Your task to perform on an android device: turn off picture-in-picture Image 0: 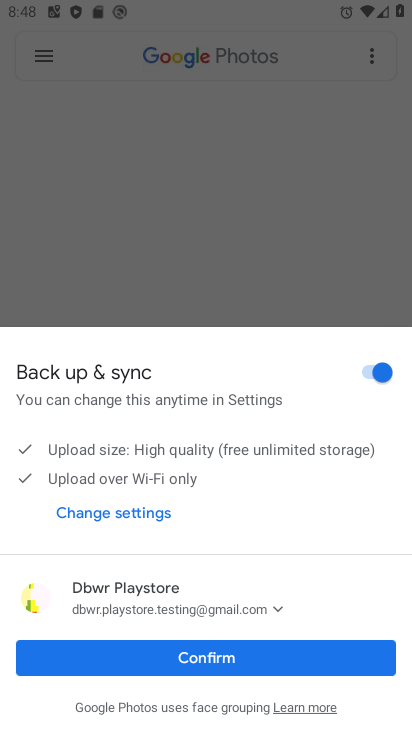
Step 0: click (288, 666)
Your task to perform on an android device: turn off picture-in-picture Image 1: 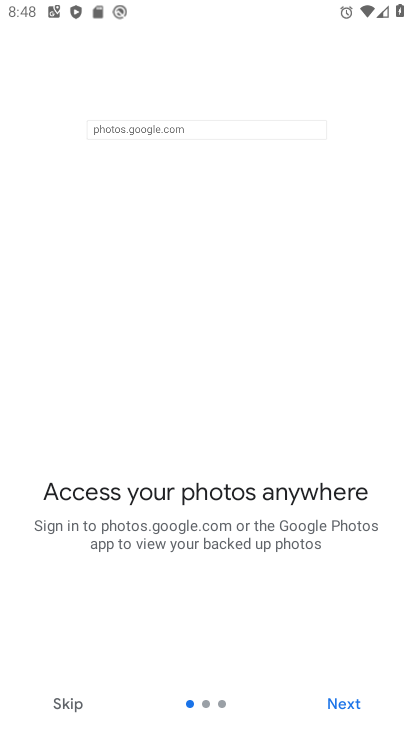
Step 1: press home button
Your task to perform on an android device: turn off picture-in-picture Image 2: 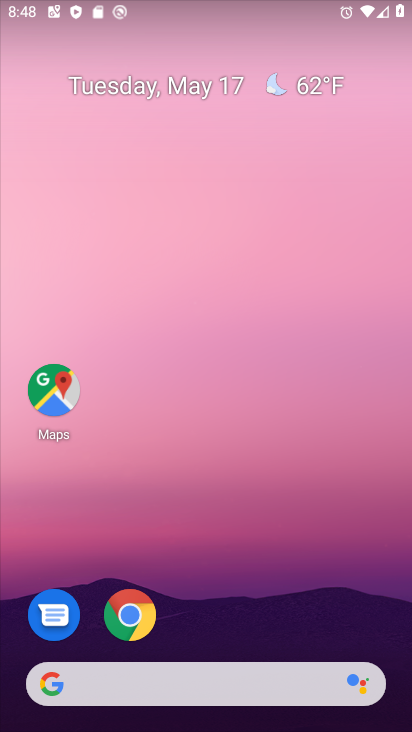
Step 2: click (133, 611)
Your task to perform on an android device: turn off picture-in-picture Image 3: 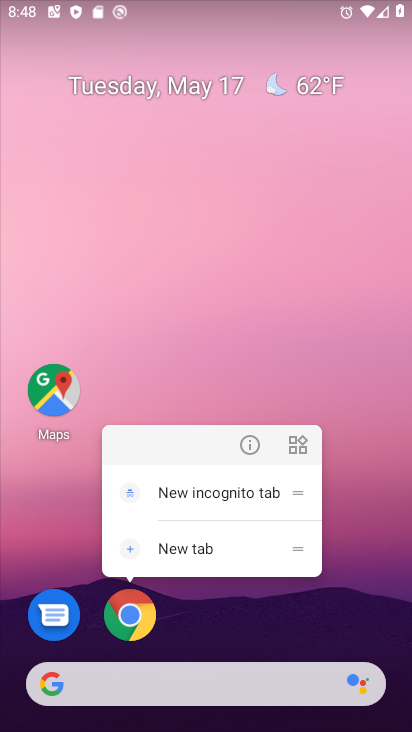
Step 3: click (251, 451)
Your task to perform on an android device: turn off picture-in-picture Image 4: 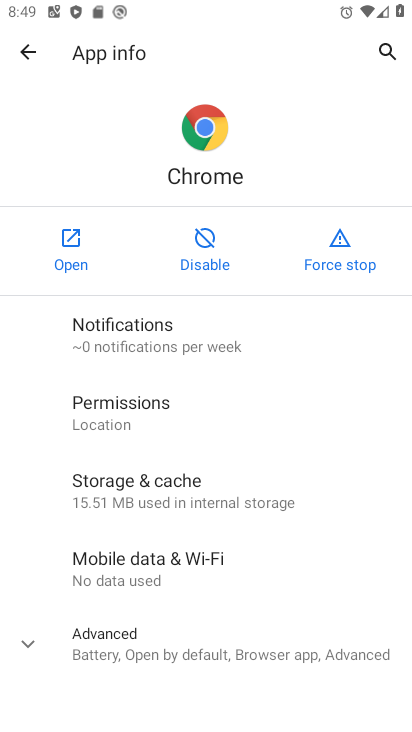
Step 4: click (171, 632)
Your task to perform on an android device: turn off picture-in-picture Image 5: 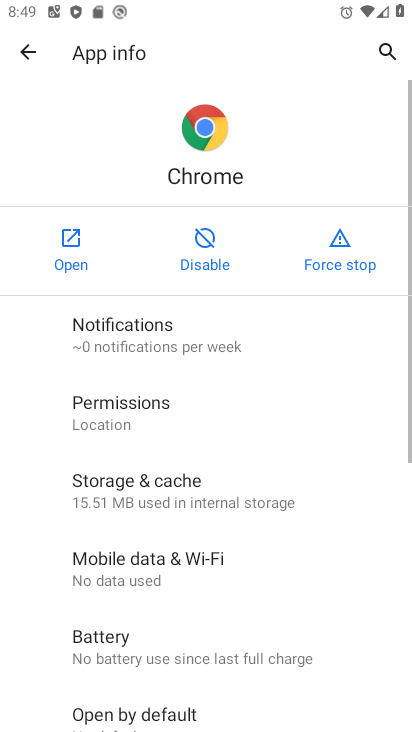
Step 5: drag from (187, 634) to (193, 265)
Your task to perform on an android device: turn off picture-in-picture Image 6: 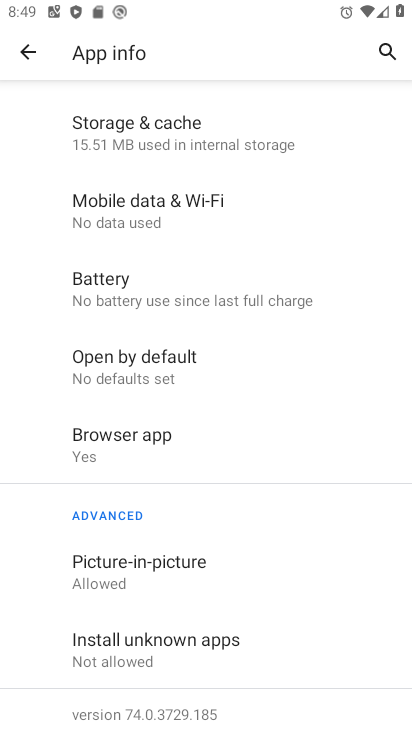
Step 6: click (158, 582)
Your task to perform on an android device: turn off picture-in-picture Image 7: 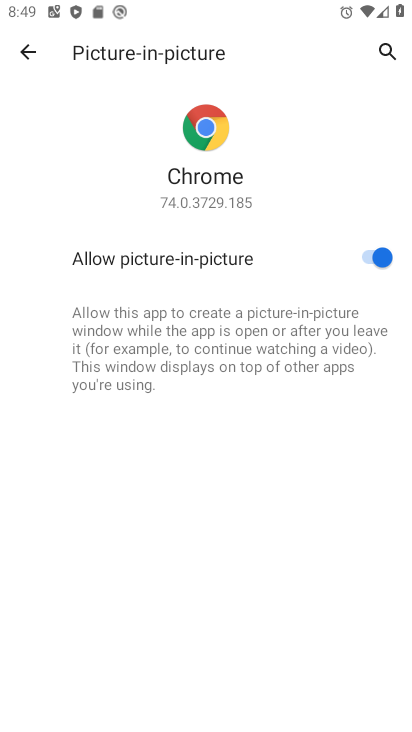
Step 7: click (387, 256)
Your task to perform on an android device: turn off picture-in-picture Image 8: 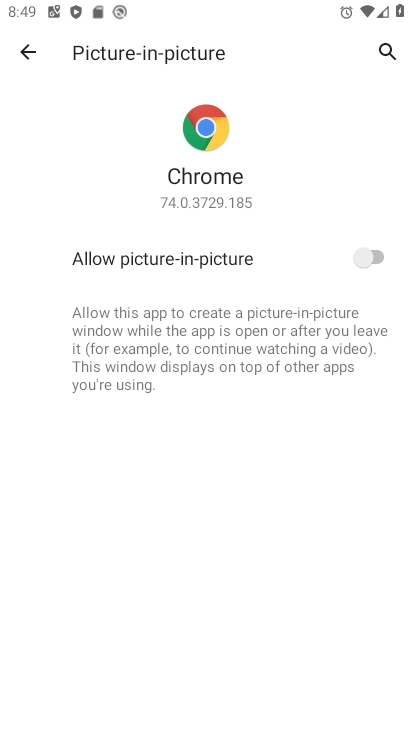
Step 8: task complete